Your task to perform on an android device: Go to Wikipedia Image 0: 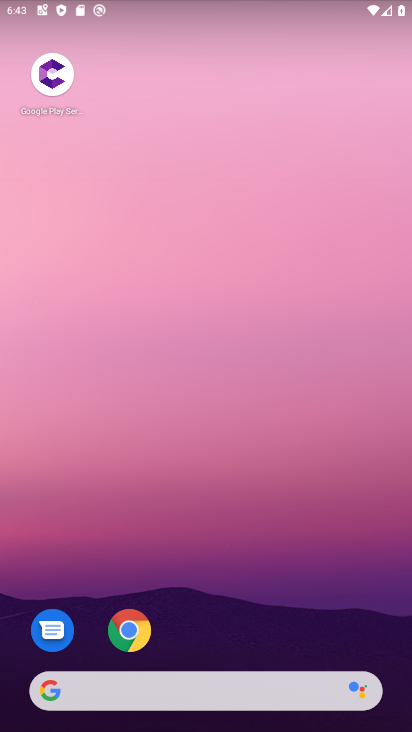
Step 0: drag from (221, 628) to (8, 182)
Your task to perform on an android device: Go to Wikipedia Image 1: 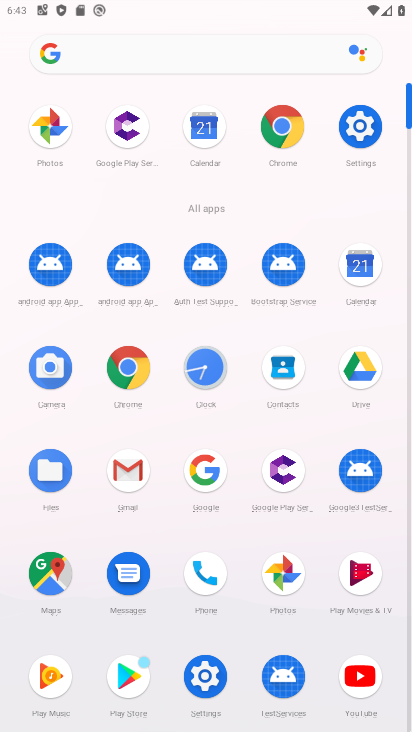
Step 1: drag from (355, 622) to (218, 298)
Your task to perform on an android device: Go to Wikipedia Image 2: 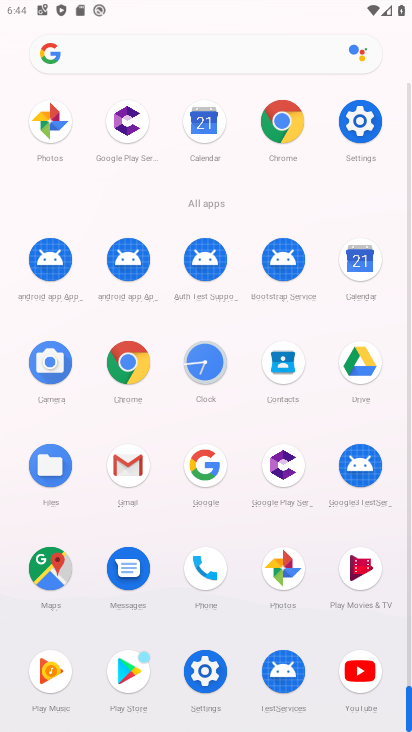
Step 2: click (279, 154)
Your task to perform on an android device: Go to Wikipedia Image 3: 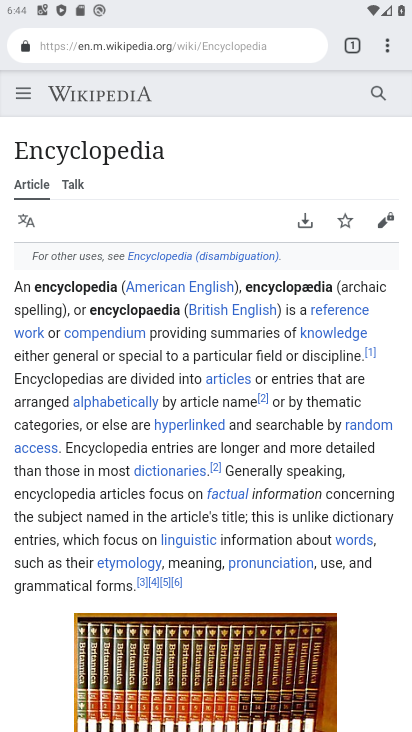
Step 3: task complete